Your task to perform on an android device: make emails show in primary in the gmail app Image 0: 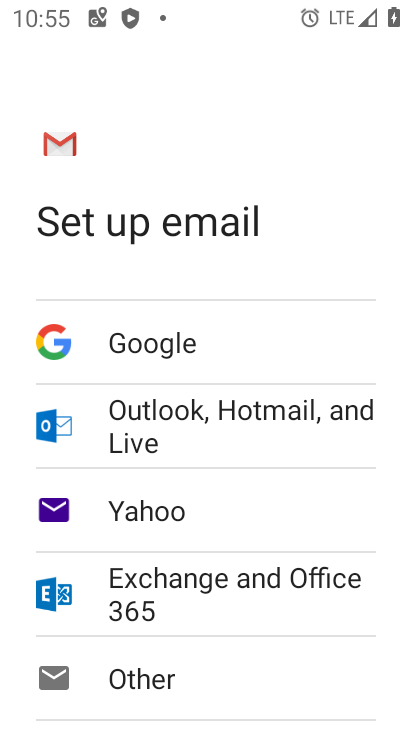
Step 0: press home button
Your task to perform on an android device: make emails show in primary in the gmail app Image 1: 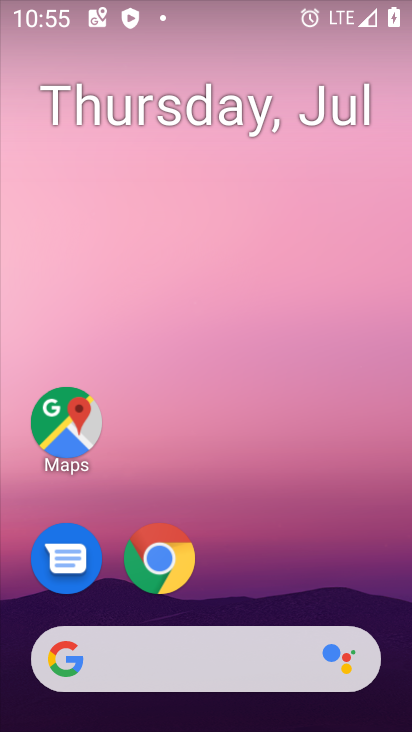
Step 1: drag from (351, 583) to (363, 93)
Your task to perform on an android device: make emails show in primary in the gmail app Image 2: 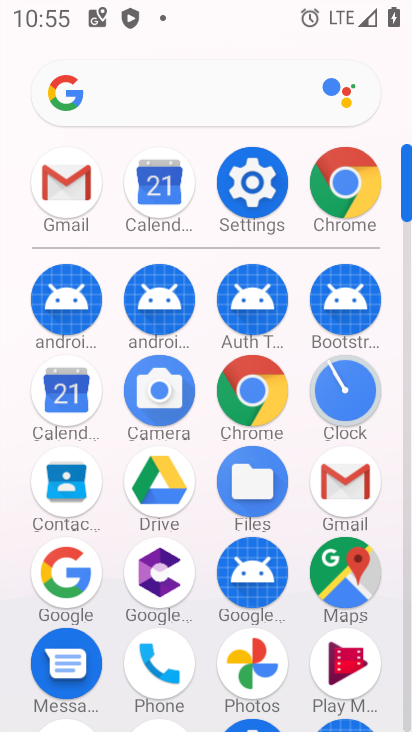
Step 2: click (345, 479)
Your task to perform on an android device: make emails show in primary in the gmail app Image 3: 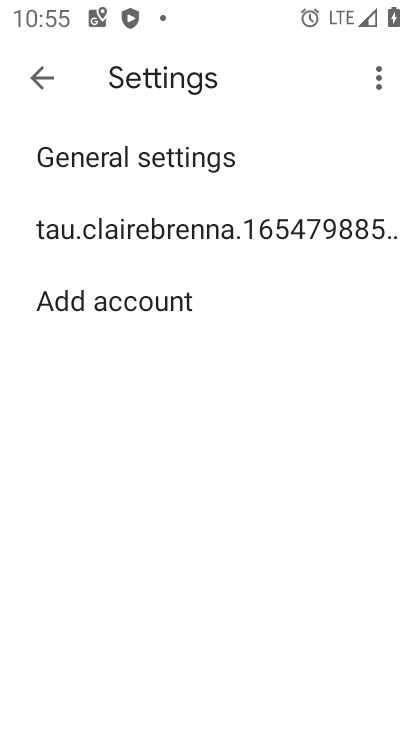
Step 3: click (321, 235)
Your task to perform on an android device: make emails show in primary in the gmail app Image 4: 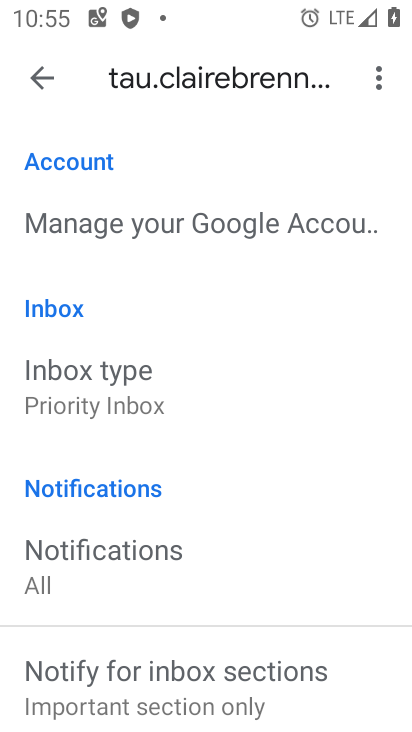
Step 4: drag from (326, 480) to (330, 336)
Your task to perform on an android device: make emails show in primary in the gmail app Image 5: 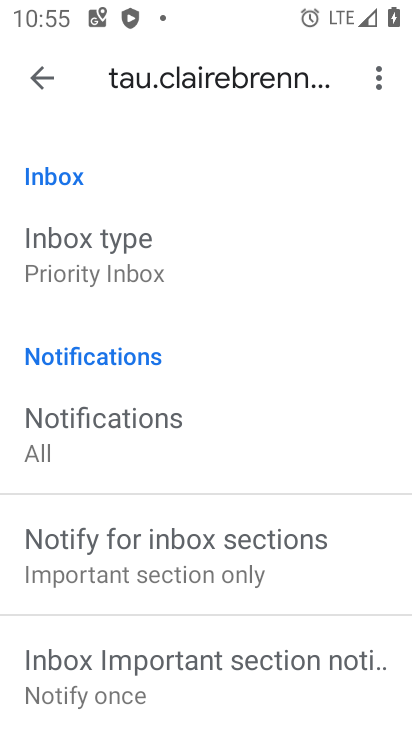
Step 5: drag from (335, 488) to (336, 348)
Your task to perform on an android device: make emails show in primary in the gmail app Image 6: 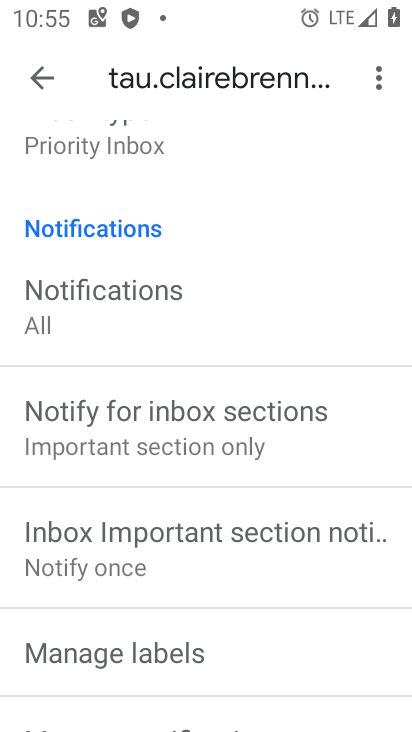
Step 6: drag from (337, 519) to (337, 396)
Your task to perform on an android device: make emails show in primary in the gmail app Image 7: 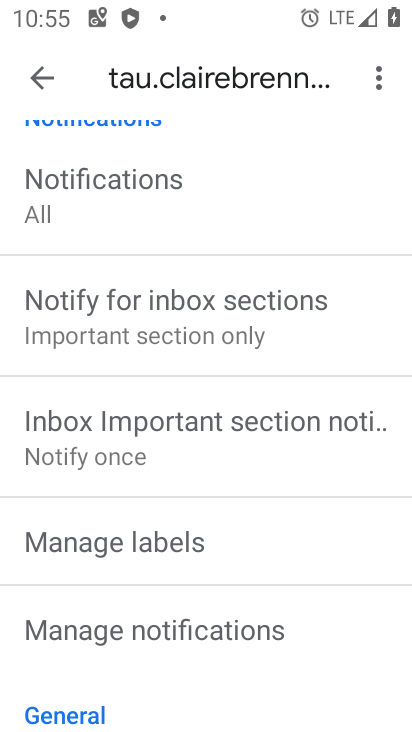
Step 7: drag from (331, 549) to (327, 437)
Your task to perform on an android device: make emails show in primary in the gmail app Image 8: 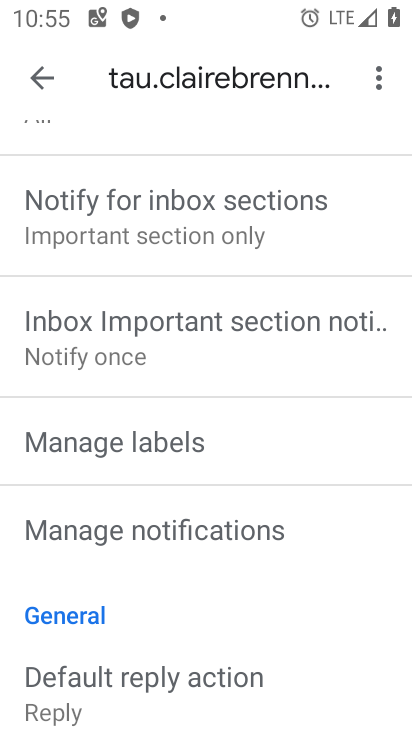
Step 8: drag from (331, 592) to (335, 441)
Your task to perform on an android device: make emails show in primary in the gmail app Image 9: 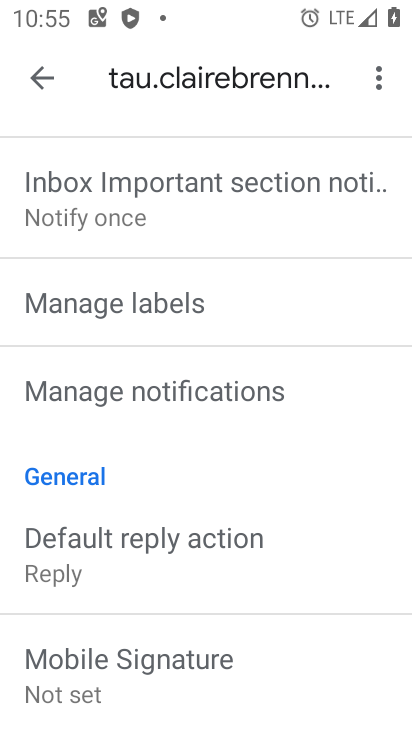
Step 9: drag from (335, 576) to (339, 426)
Your task to perform on an android device: make emails show in primary in the gmail app Image 10: 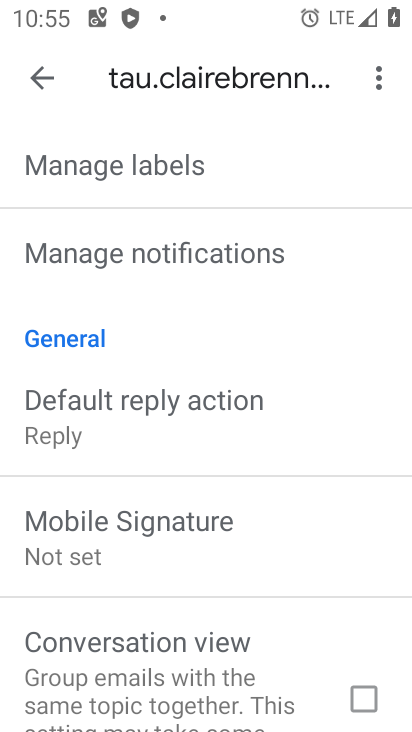
Step 10: drag from (337, 540) to (337, 354)
Your task to perform on an android device: make emails show in primary in the gmail app Image 11: 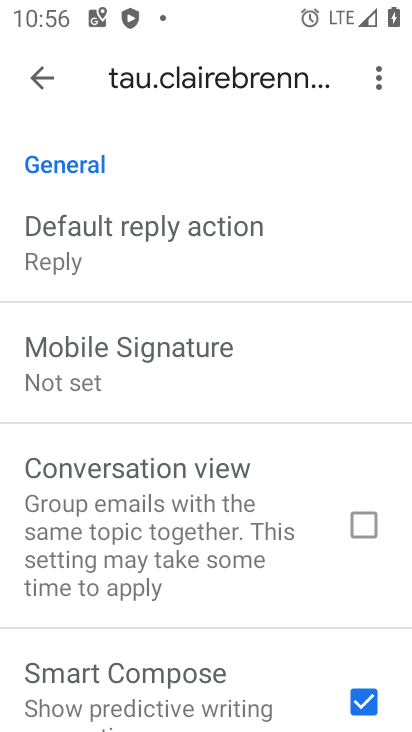
Step 11: drag from (316, 532) to (309, 341)
Your task to perform on an android device: make emails show in primary in the gmail app Image 12: 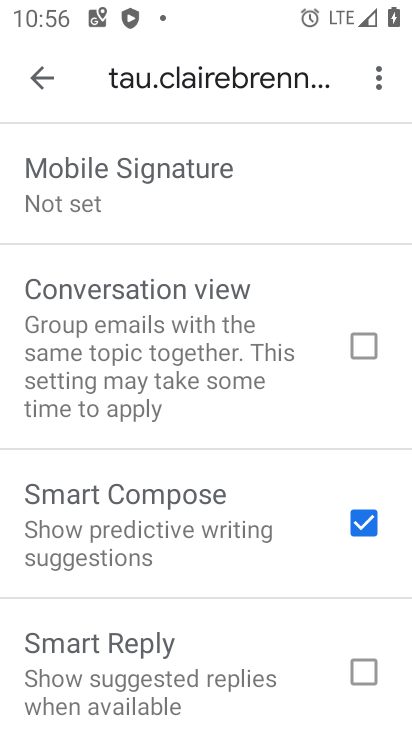
Step 12: drag from (296, 589) to (298, 340)
Your task to perform on an android device: make emails show in primary in the gmail app Image 13: 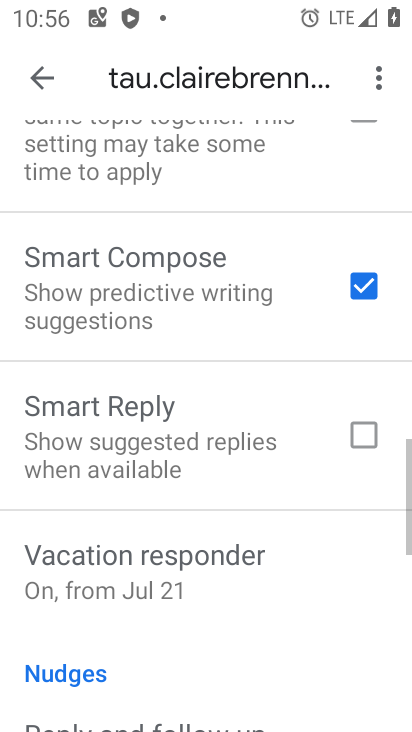
Step 13: drag from (303, 302) to (301, 431)
Your task to perform on an android device: make emails show in primary in the gmail app Image 14: 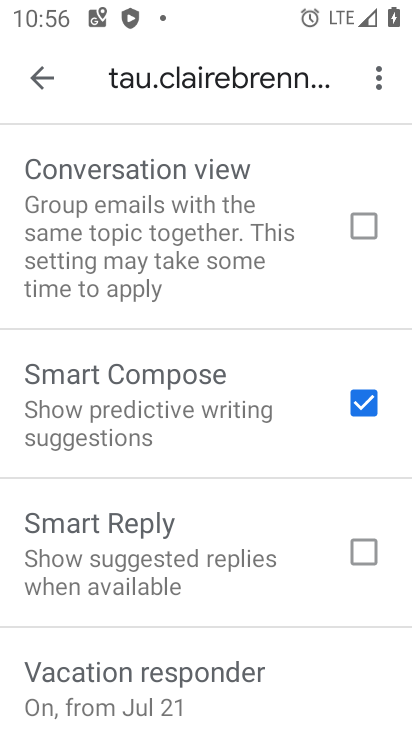
Step 14: drag from (299, 281) to (298, 425)
Your task to perform on an android device: make emails show in primary in the gmail app Image 15: 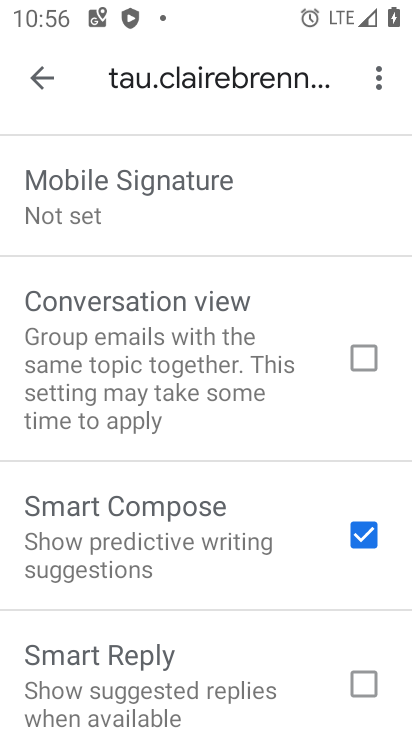
Step 15: drag from (293, 264) to (298, 398)
Your task to perform on an android device: make emails show in primary in the gmail app Image 16: 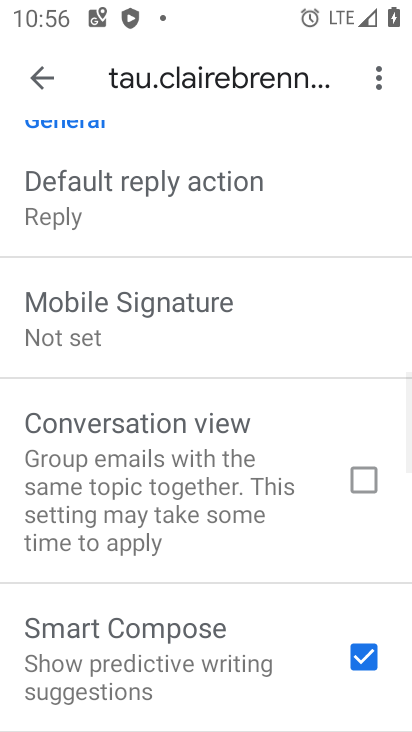
Step 16: drag from (296, 248) to (298, 375)
Your task to perform on an android device: make emails show in primary in the gmail app Image 17: 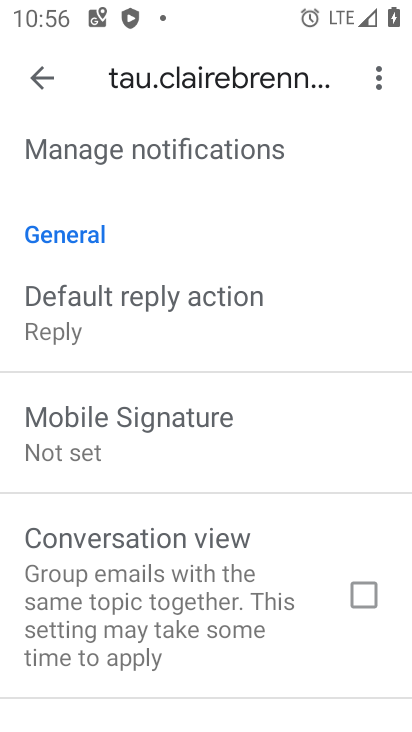
Step 17: drag from (291, 215) to (288, 351)
Your task to perform on an android device: make emails show in primary in the gmail app Image 18: 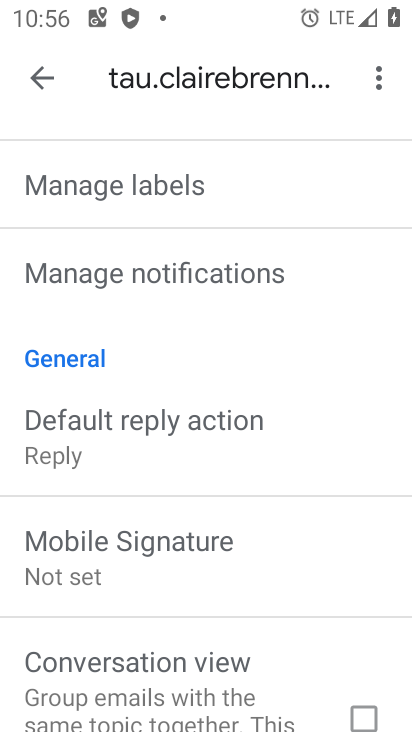
Step 18: drag from (294, 185) to (289, 373)
Your task to perform on an android device: make emails show in primary in the gmail app Image 19: 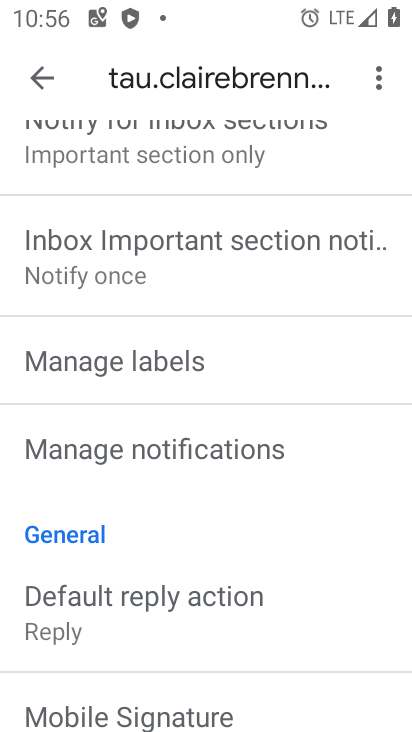
Step 19: drag from (293, 174) to (290, 343)
Your task to perform on an android device: make emails show in primary in the gmail app Image 20: 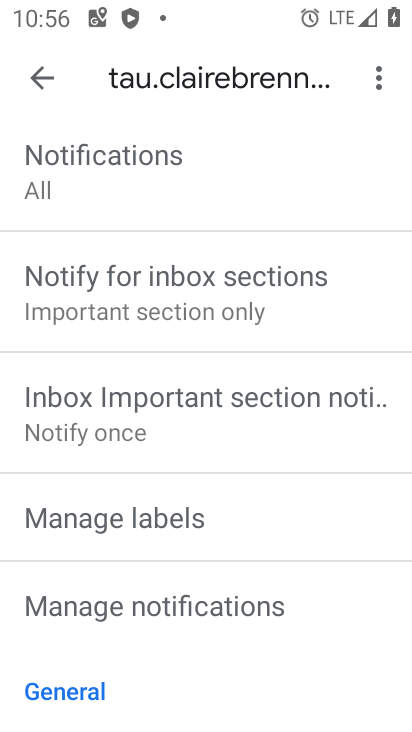
Step 20: drag from (276, 169) to (278, 358)
Your task to perform on an android device: make emails show in primary in the gmail app Image 21: 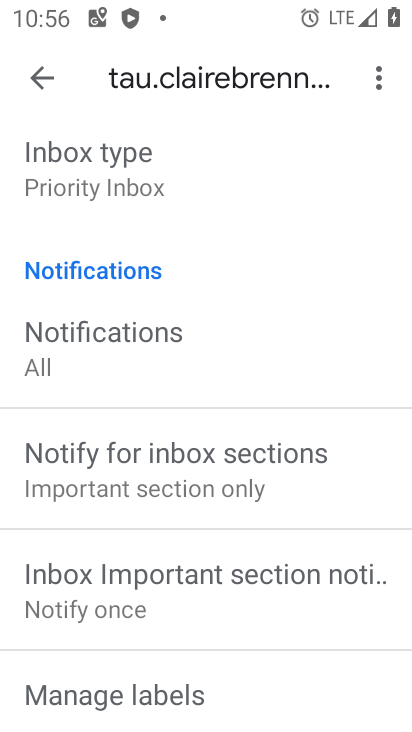
Step 21: drag from (263, 172) to (255, 384)
Your task to perform on an android device: make emails show in primary in the gmail app Image 22: 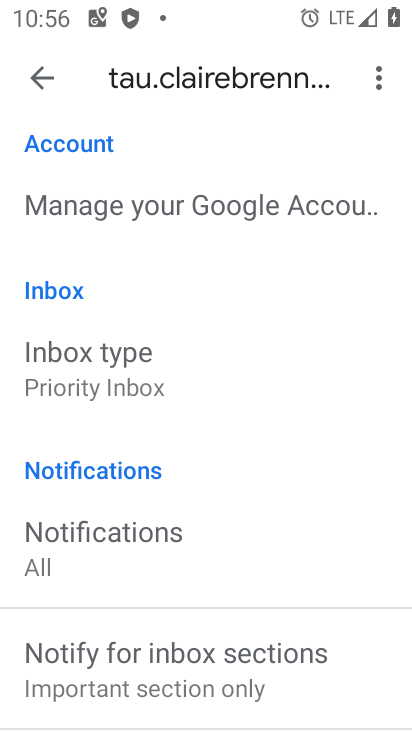
Step 22: click (128, 365)
Your task to perform on an android device: make emails show in primary in the gmail app Image 23: 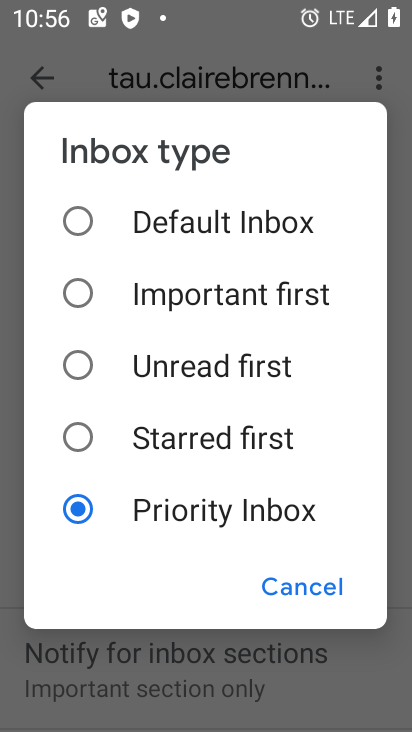
Step 23: click (193, 221)
Your task to perform on an android device: make emails show in primary in the gmail app Image 24: 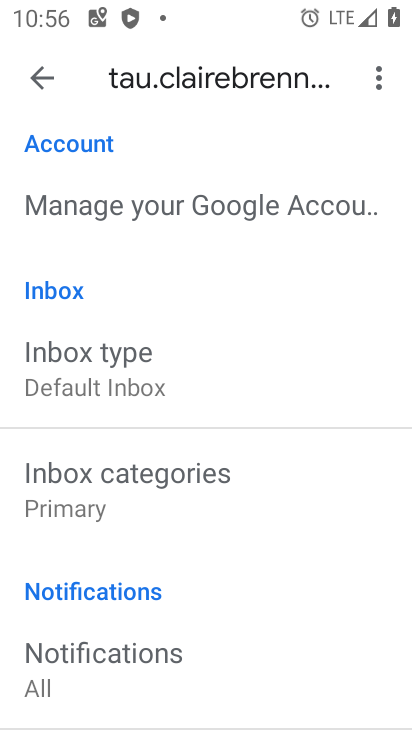
Step 24: click (151, 495)
Your task to perform on an android device: make emails show in primary in the gmail app Image 25: 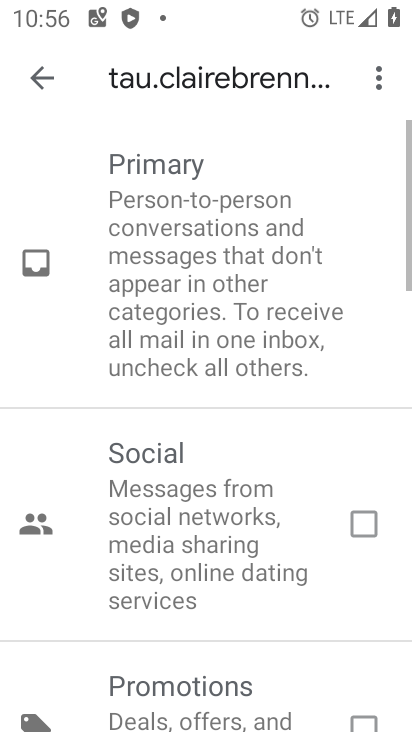
Step 25: task complete